Your task to perform on an android device: turn on wifi Image 0: 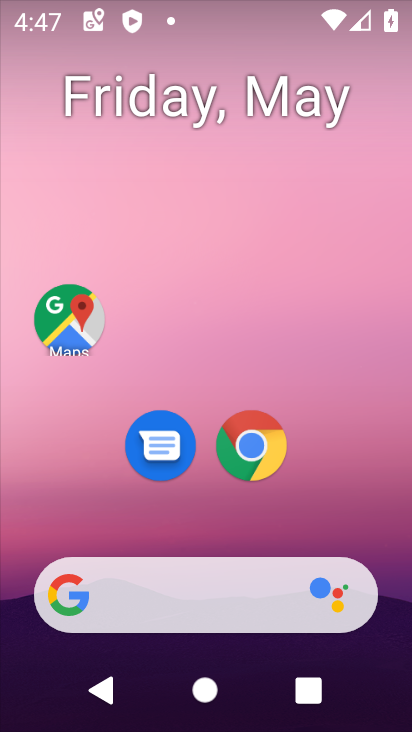
Step 0: drag from (350, 533) to (332, 1)
Your task to perform on an android device: turn on wifi Image 1: 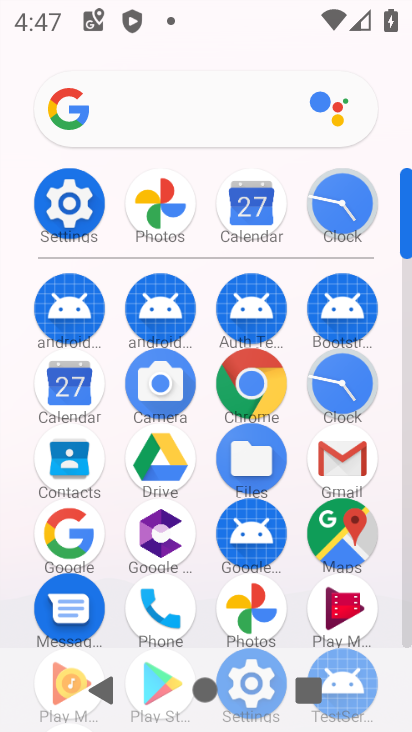
Step 1: click (80, 202)
Your task to perform on an android device: turn on wifi Image 2: 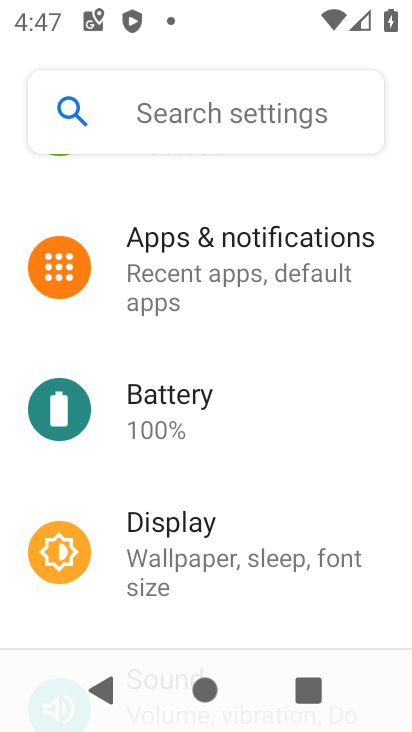
Step 2: drag from (284, 187) to (271, 641)
Your task to perform on an android device: turn on wifi Image 3: 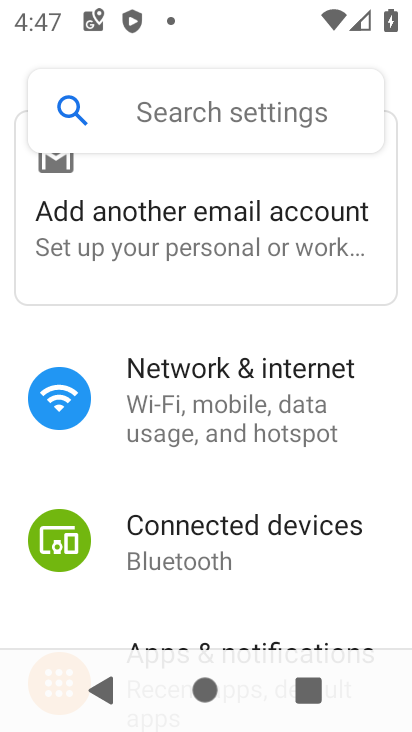
Step 3: click (188, 372)
Your task to perform on an android device: turn on wifi Image 4: 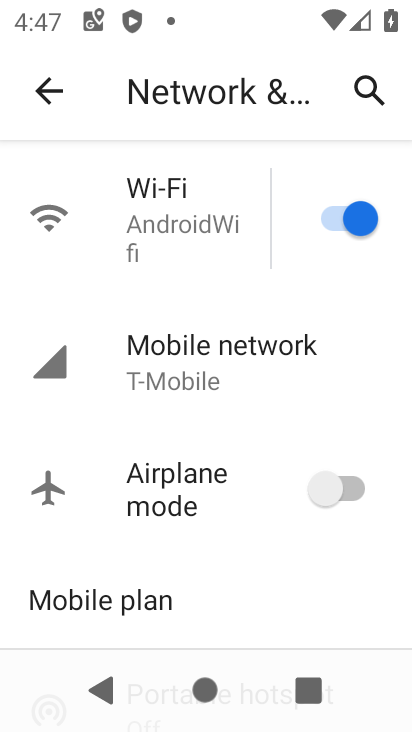
Step 4: task complete